Your task to perform on an android device: Do I have any events tomorrow? Image 0: 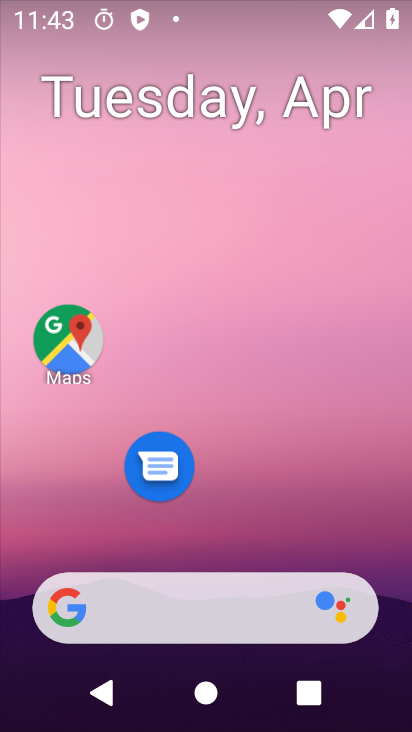
Step 0: drag from (235, 526) to (224, 161)
Your task to perform on an android device: Do I have any events tomorrow? Image 1: 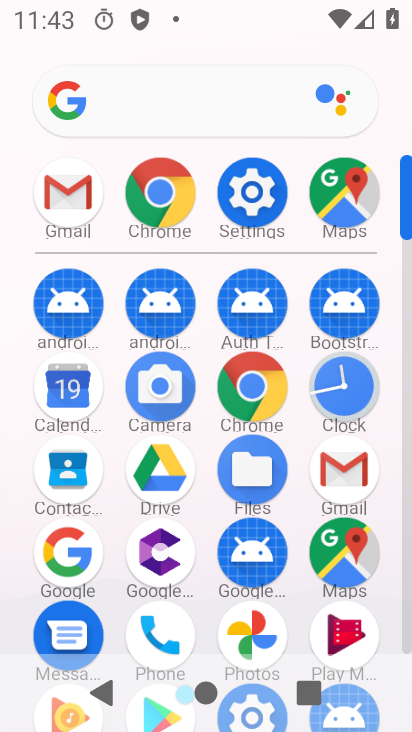
Step 1: click (76, 414)
Your task to perform on an android device: Do I have any events tomorrow? Image 2: 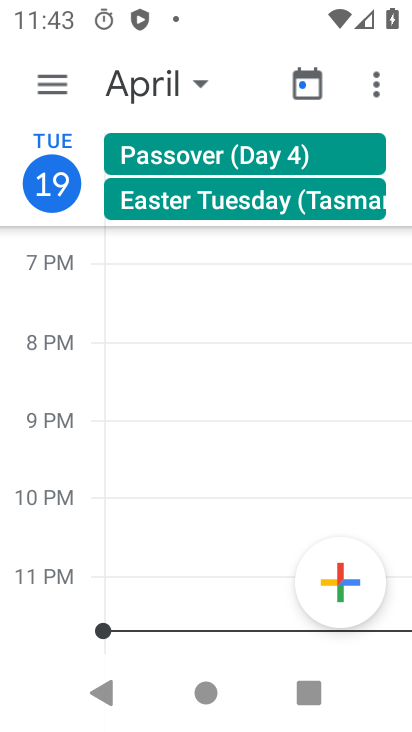
Step 2: click (52, 174)
Your task to perform on an android device: Do I have any events tomorrow? Image 3: 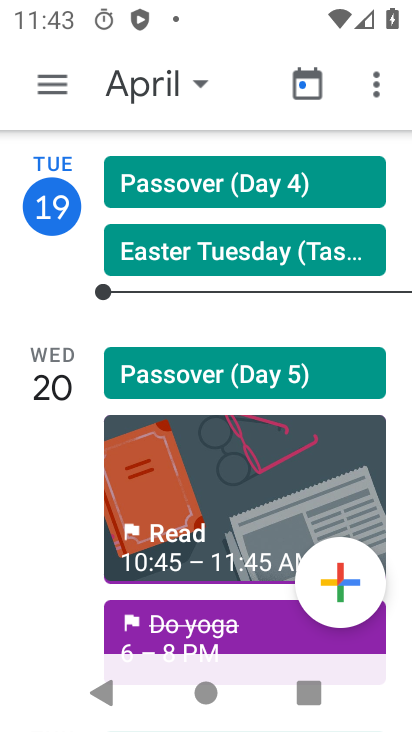
Step 3: click (42, 409)
Your task to perform on an android device: Do I have any events tomorrow? Image 4: 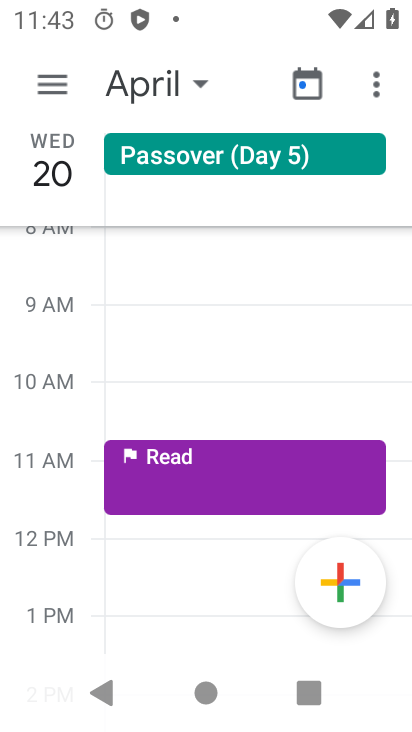
Step 4: task complete